Your task to perform on an android device: Open Google Image 0: 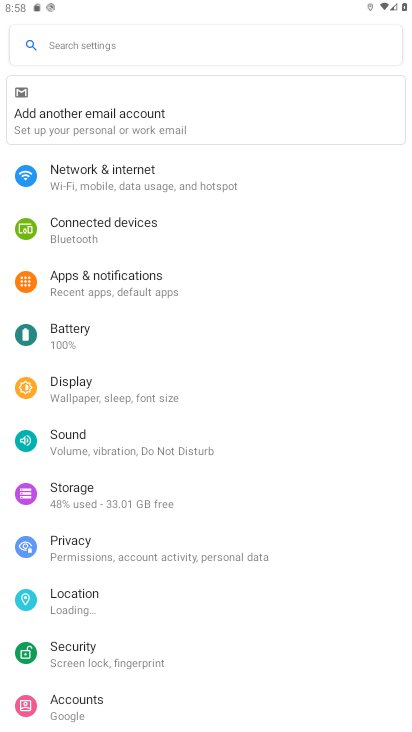
Step 0: press back button
Your task to perform on an android device: Open Google Image 1: 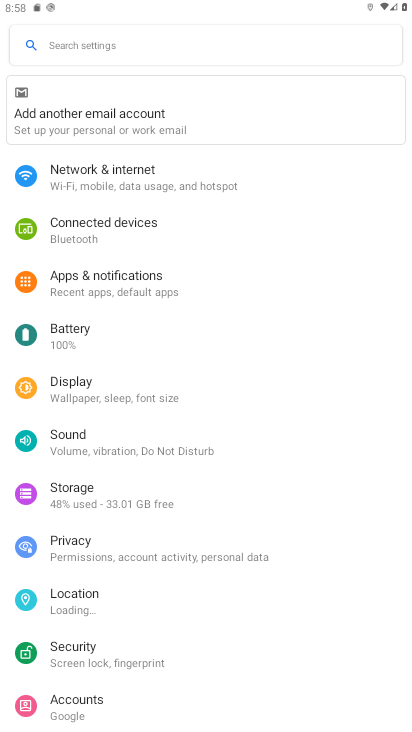
Step 1: press back button
Your task to perform on an android device: Open Google Image 2: 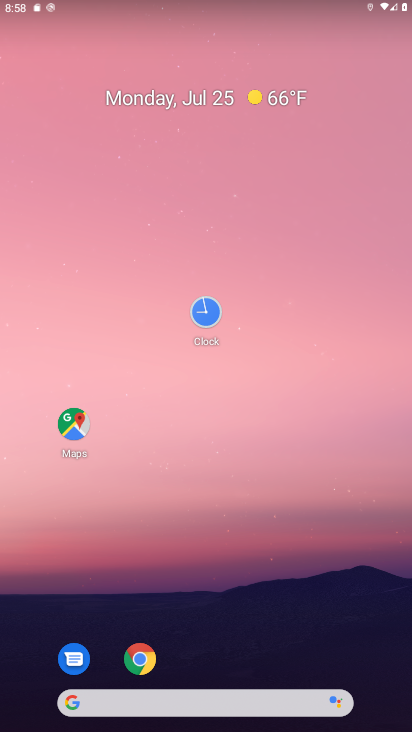
Step 2: drag from (246, 600) to (216, 222)
Your task to perform on an android device: Open Google Image 3: 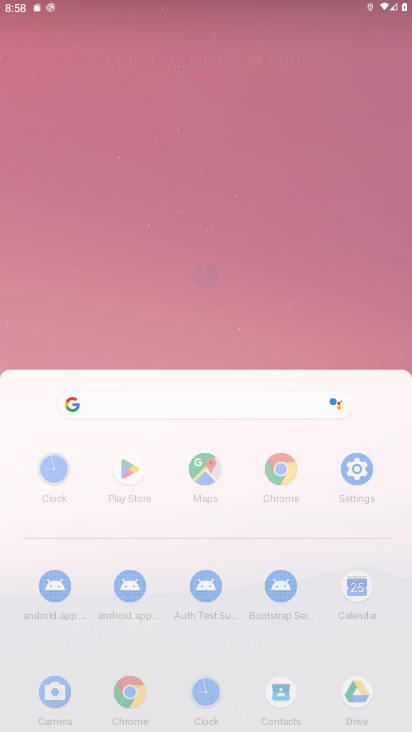
Step 3: drag from (270, 664) to (319, 184)
Your task to perform on an android device: Open Google Image 4: 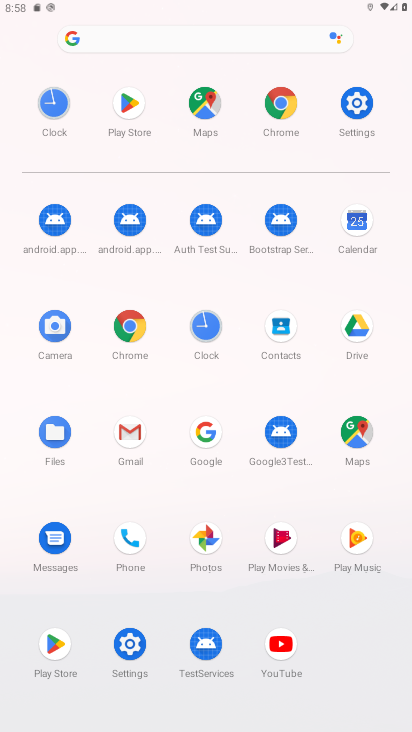
Step 4: drag from (297, 515) to (221, 103)
Your task to perform on an android device: Open Google Image 5: 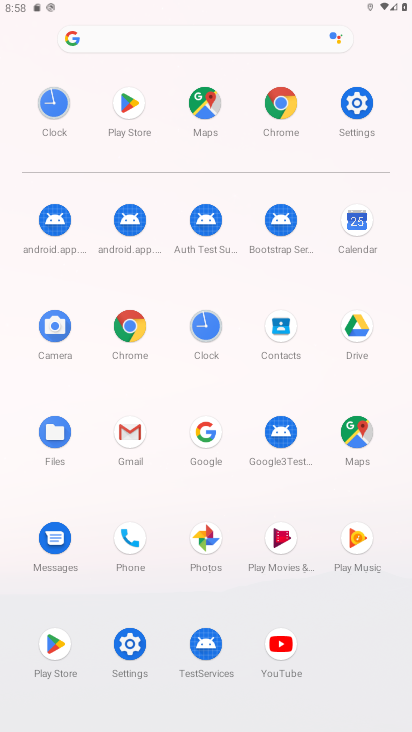
Step 5: click (207, 451)
Your task to perform on an android device: Open Google Image 6: 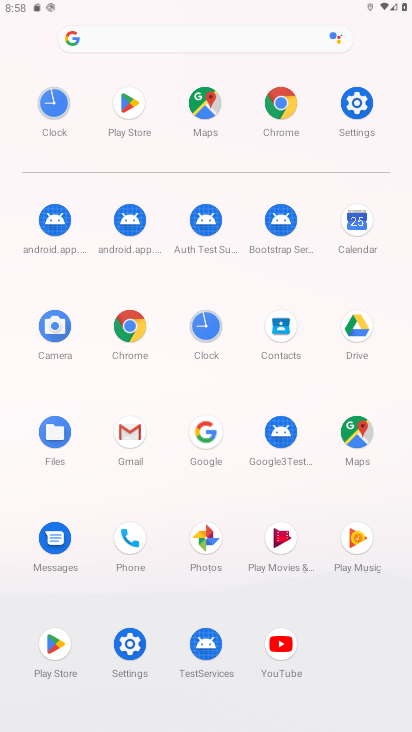
Step 6: click (209, 449)
Your task to perform on an android device: Open Google Image 7: 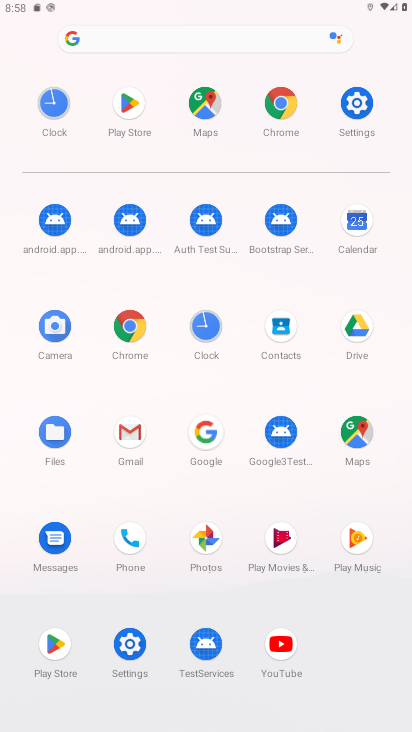
Step 7: click (209, 449)
Your task to perform on an android device: Open Google Image 8: 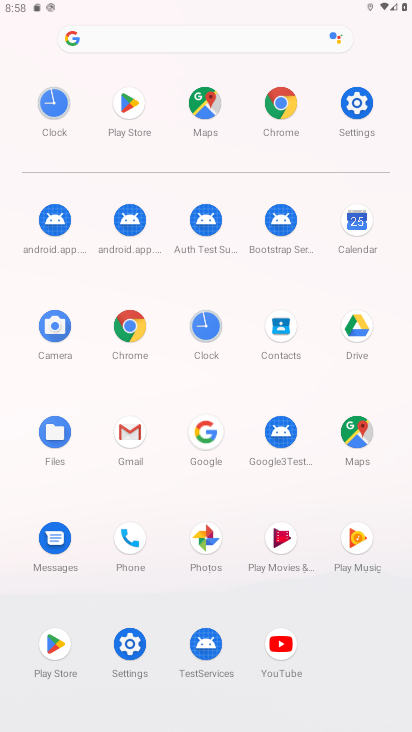
Step 8: click (209, 449)
Your task to perform on an android device: Open Google Image 9: 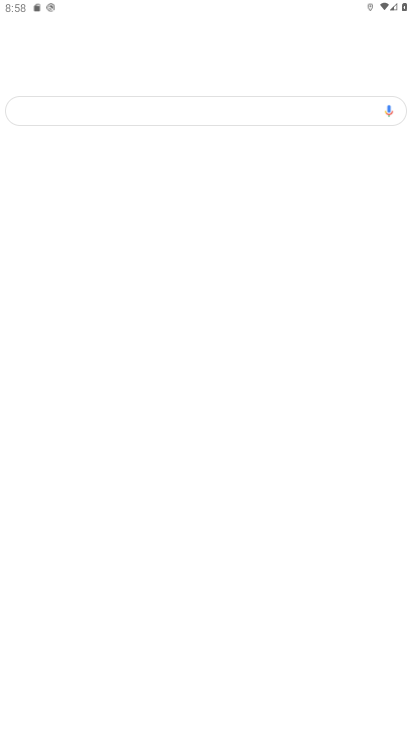
Step 9: click (209, 449)
Your task to perform on an android device: Open Google Image 10: 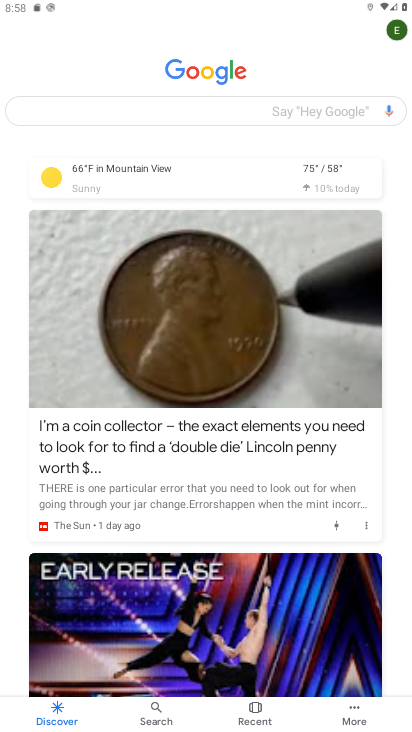
Step 10: task complete